Your task to perform on an android device: Go to settings Image 0: 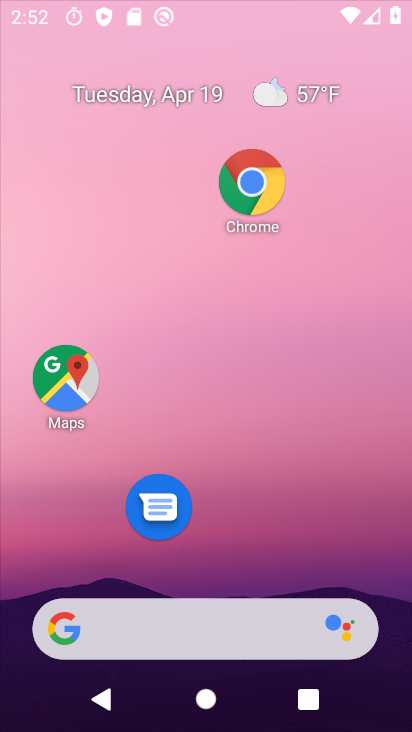
Step 0: click (309, 265)
Your task to perform on an android device: Go to settings Image 1: 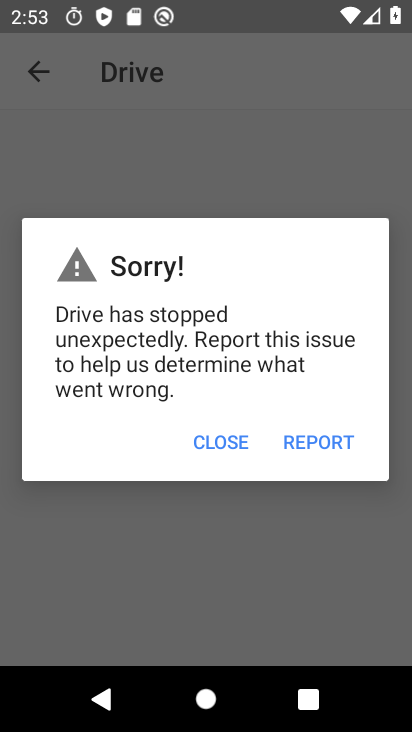
Step 1: press home button
Your task to perform on an android device: Go to settings Image 2: 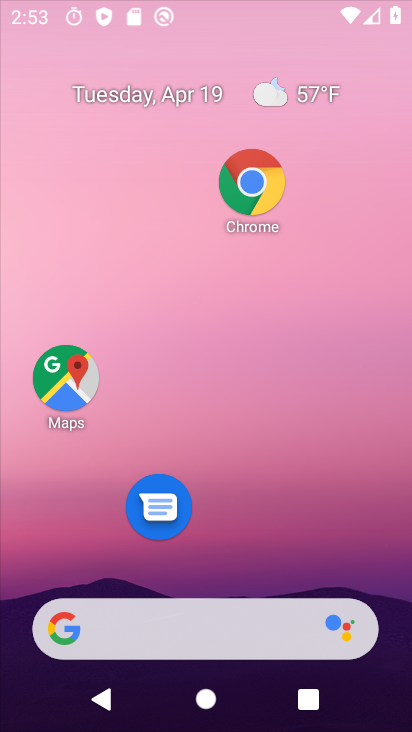
Step 2: drag from (253, 509) to (301, 71)
Your task to perform on an android device: Go to settings Image 3: 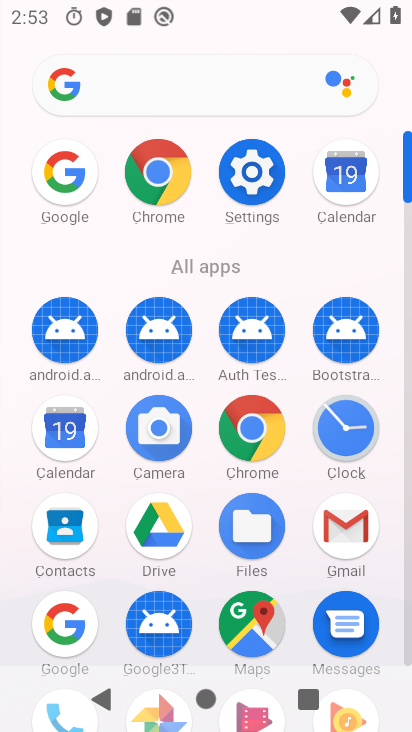
Step 3: click (264, 187)
Your task to perform on an android device: Go to settings Image 4: 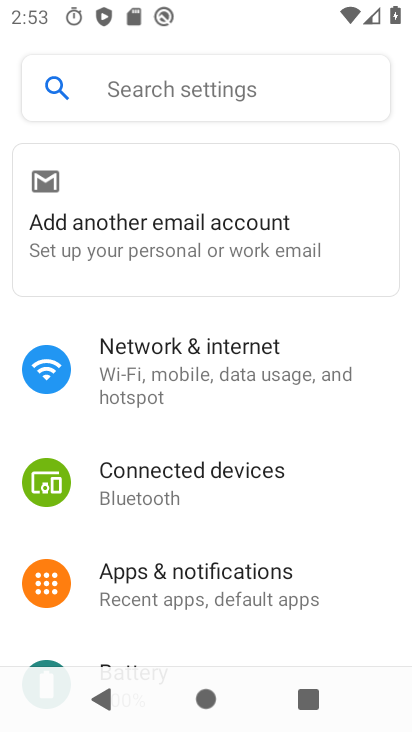
Step 4: click (260, 170)
Your task to perform on an android device: Go to settings Image 5: 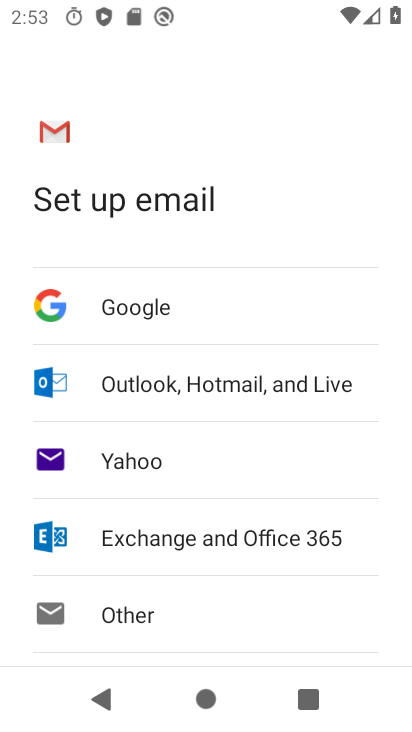
Step 5: task complete